Your task to perform on an android device: What's the news today? Image 0: 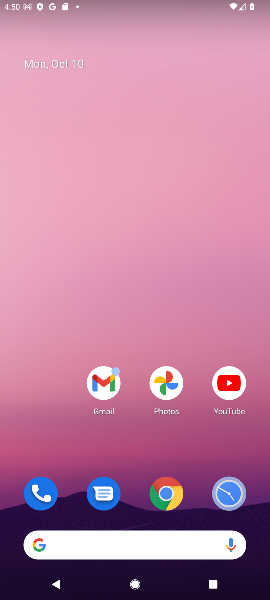
Step 0: click (114, 559)
Your task to perform on an android device: What's the news today? Image 1: 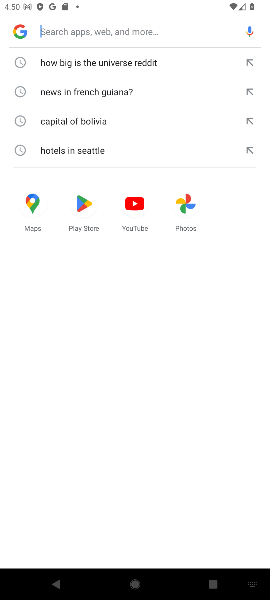
Step 1: type "What's the news today?"
Your task to perform on an android device: What's the news today? Image 2: 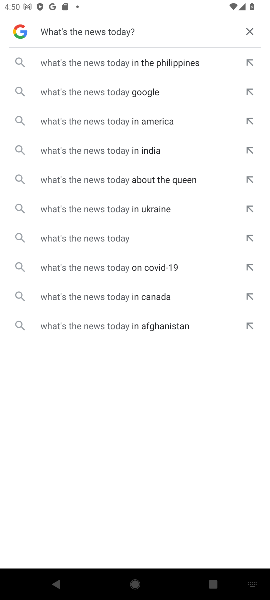
Step 2: click (199, 56)
Your task to perform on an android device: What's the news today? Image 3: 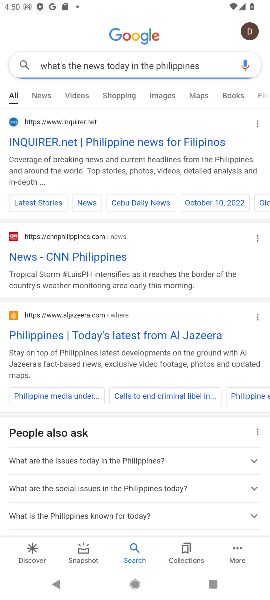
Step 3: task complete